Your task to perform on an android device: What's on my calendar today? Image 0: 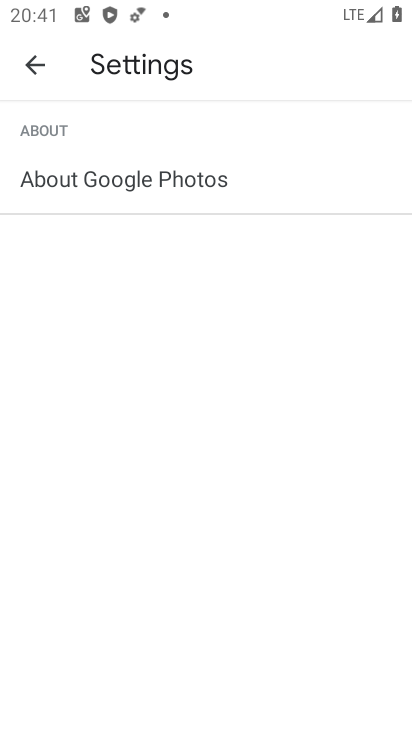
Step 0: press home button
Your task to perform on an android device: What's on my calendar today? Image 1: 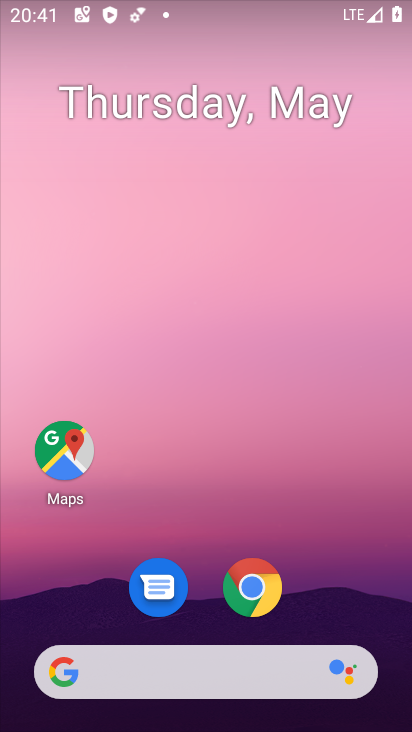
Step 1: drag from (115, 724) to (174, 48)
Your task to perform on an android device: What's on my calendar today? Image 2: 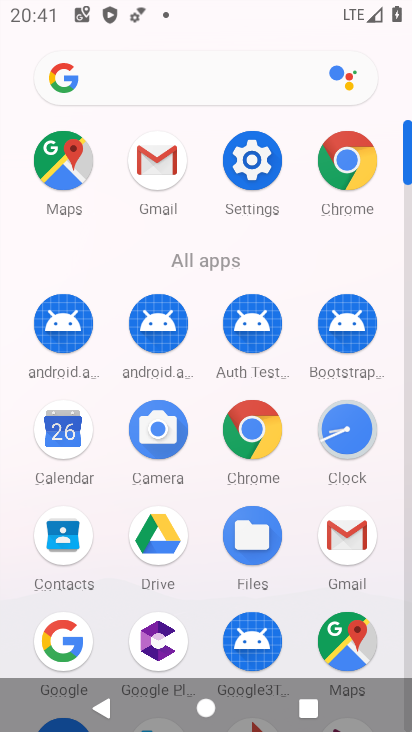
Step 2: click (50, 453)
Your task to perform on an android device: What's on my calendar today? Image 3: 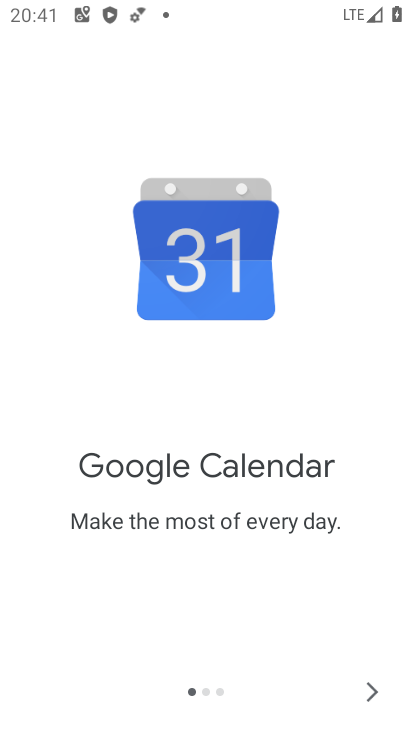
Step 3: click (373, 679)
Your task to perform on an android device: What's on my calendar today? Image 4: 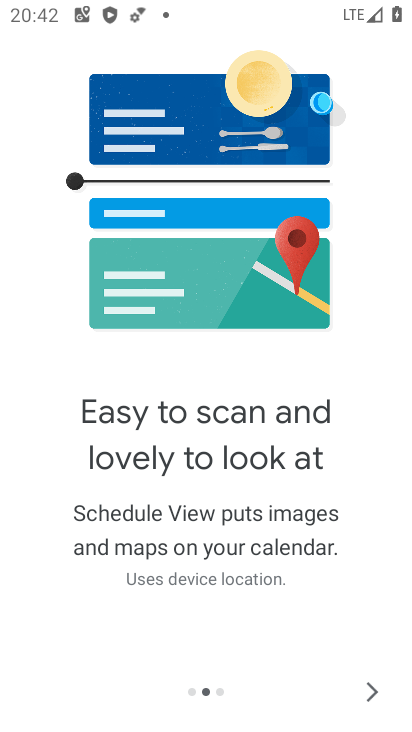
Step 4: click (391, 680)
Your task to perform on an android device: What's on my calendar today? Image 5: 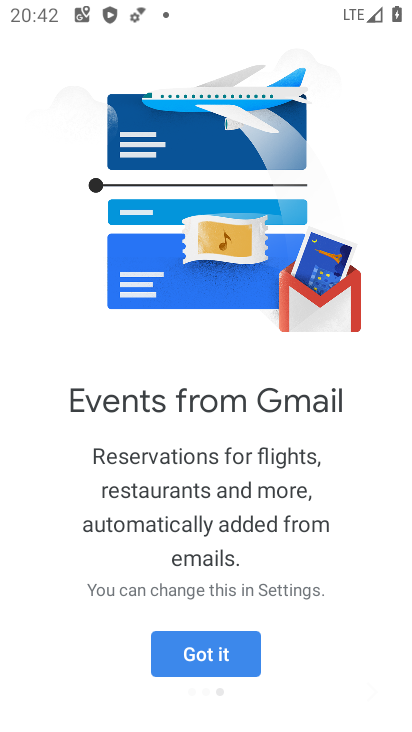
Step 5: click (378, 690)
Your task to perform on an android device: What's on my calendar today? Image 6: 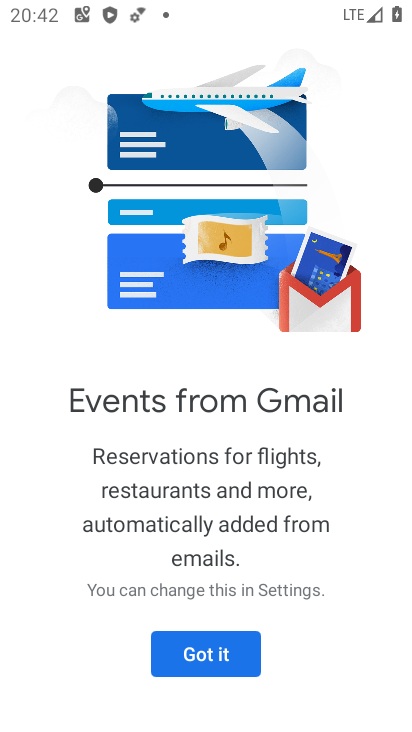
Step 6: click (234, 655)
Your task to perform on an android device: What's on my calendar today? Image 7: 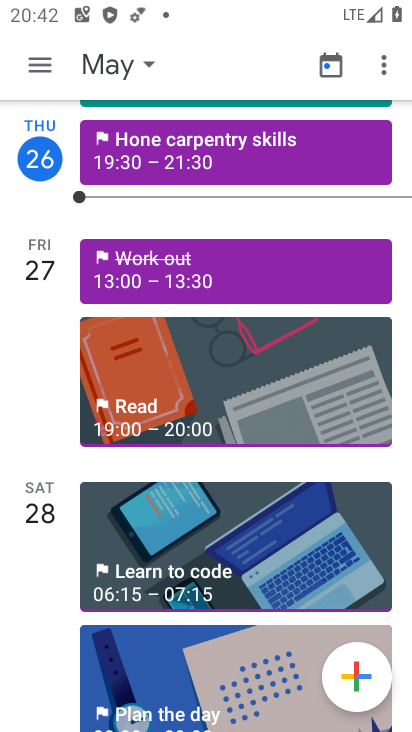
Step 7: click (163, 146)
Your task to perform on an android device: What's on my calendar today? Image 8: 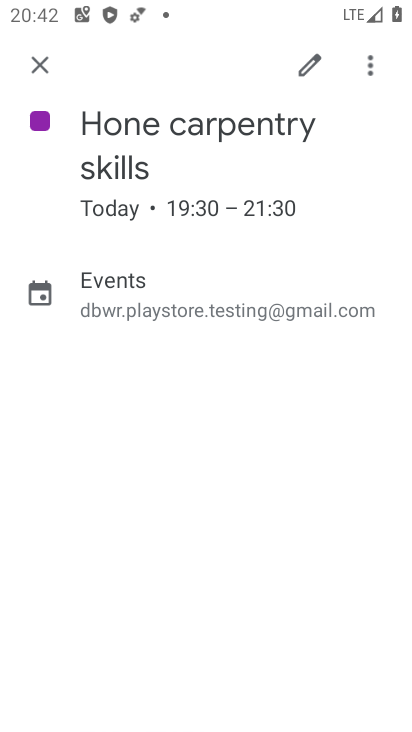
Step 8: task complete